Your task to perform on an android device: open device folders in google photos Image 0: 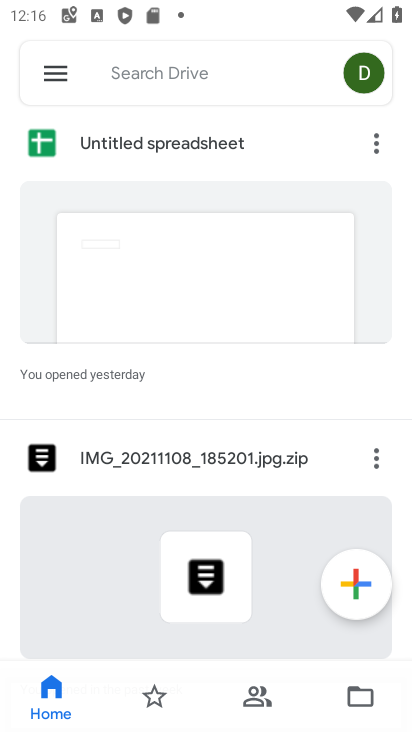
Step 0: press home button
Your task to perform on an android device: open device folders in google photos Image 1: 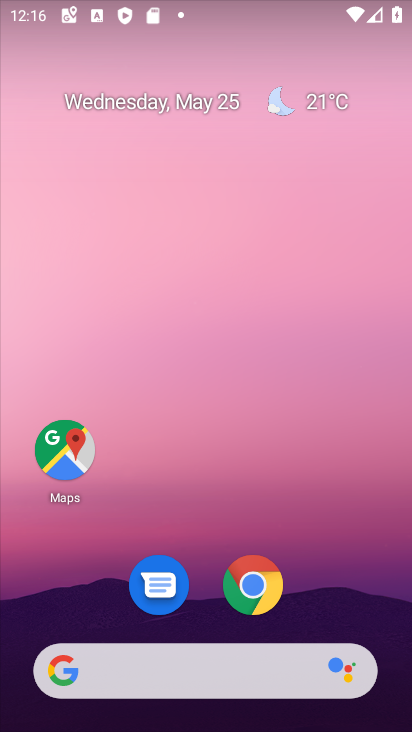
Step 1: drag from (242, 106) to (261, 27)
Your task to perform on an android device: open device folders in google photos Image 2: 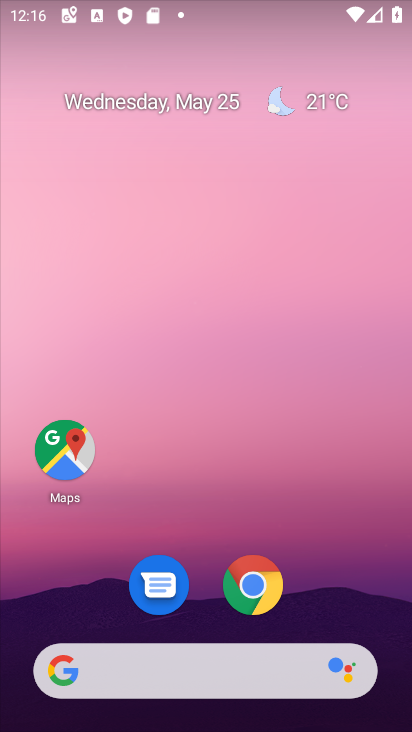
Step 2: drag from (221, 537) to (308, 25)
Your task to perform on an android device: open device folders in google photos Image 3: 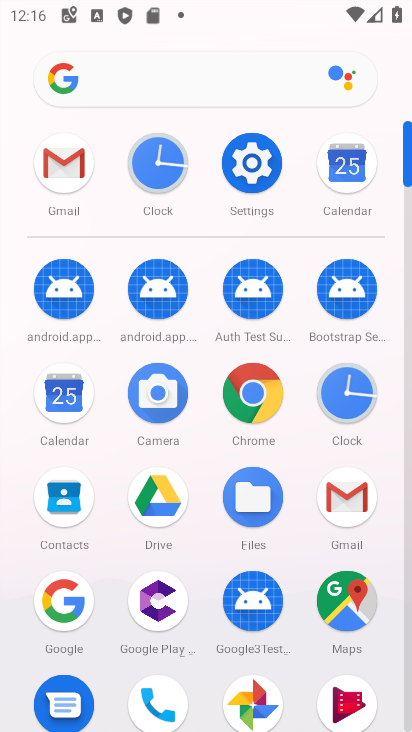
Step 3: click (260, 691)
Your task to perform on an android device: open device folders in google photos Image 4: 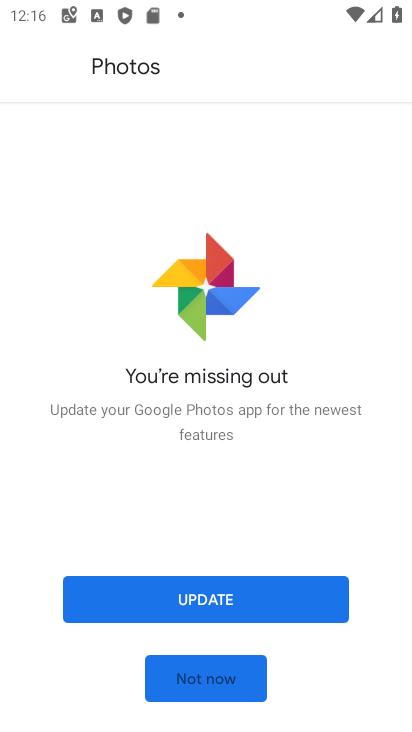
Step 4: click (207, 680)
Your task to perform on an android device: open device folders in google photos Image 5: 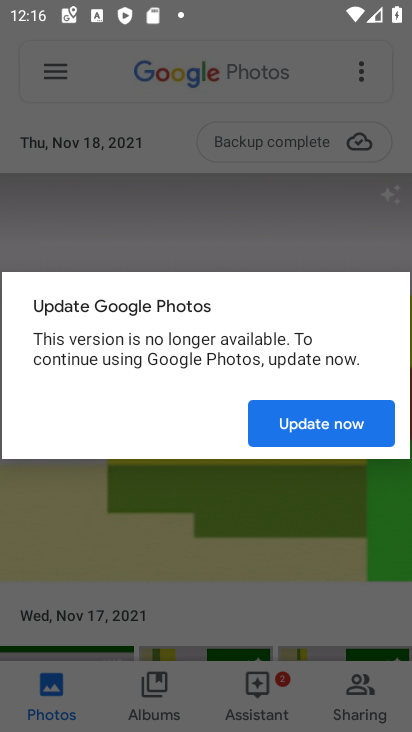
Step 5: click (366, 413)
Your task to perform on an android device: open device folders in google photos Image 6: 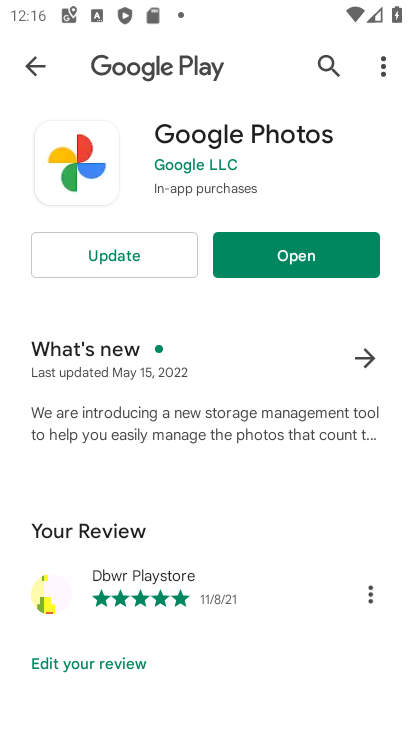
Step 6: click (308, 247)
Your task to perform on an android device: open device folders in google photos Image 7: 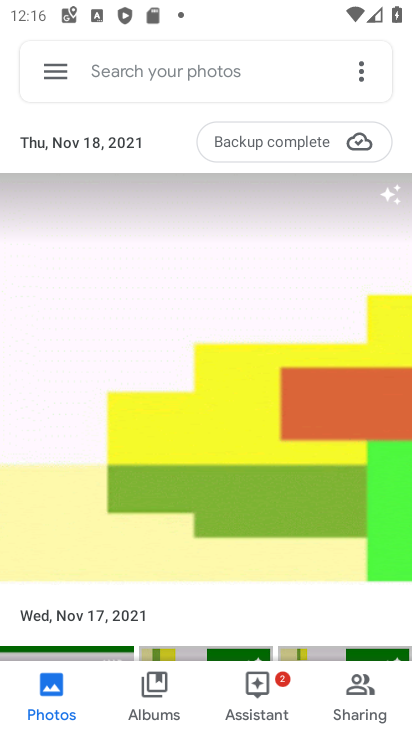
Step 7: click (55, 66)
Your task to perform on an android device: open device folders in google photos Image 8: 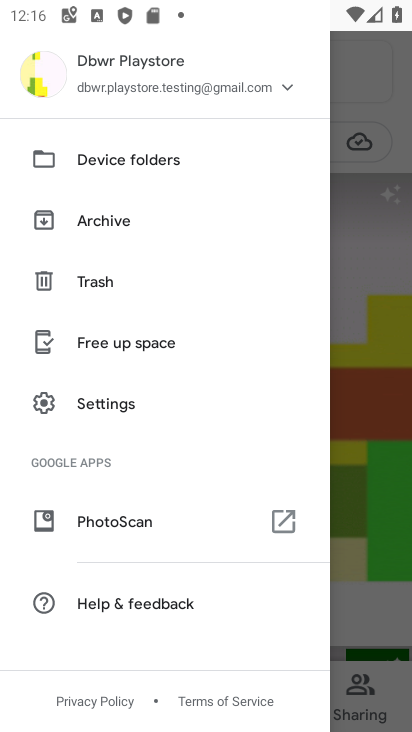
Step 8: click (98, 159)
Your task to perform on an android device: open device folders in google photos Image 9: 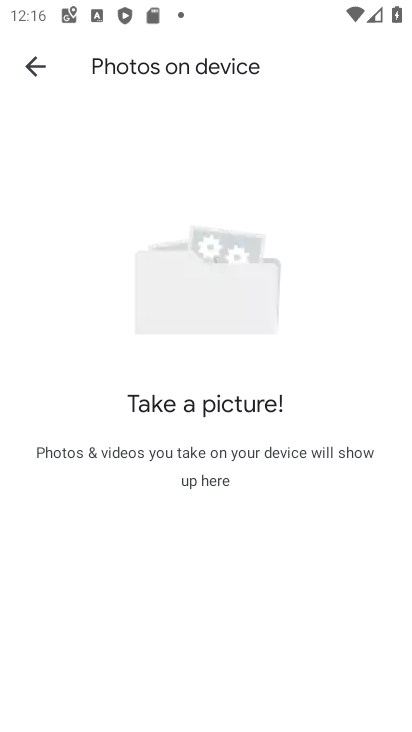
Step 9: task complete